Your task to perform on an android device: move a message to another label in the gmail app Image 0: 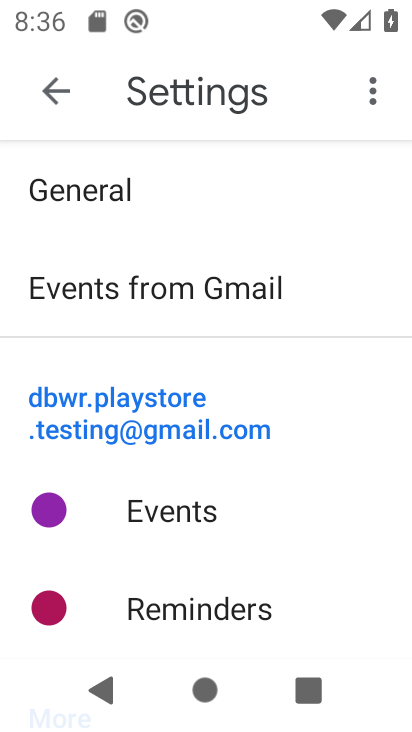
Step 0: press home button
Your task to perform on an android device: move a message to another label in the gmail app Image 1: 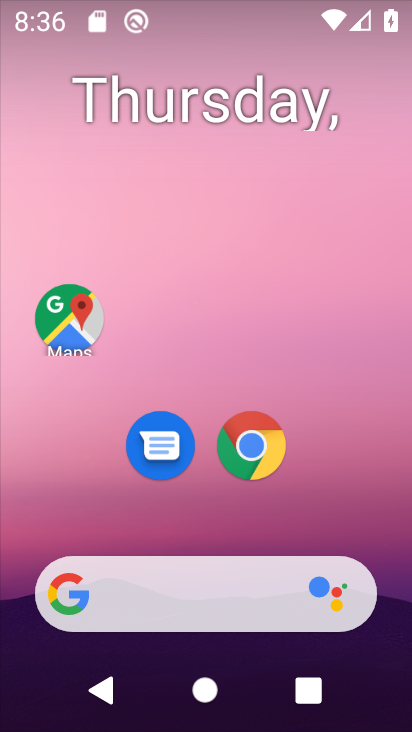
Step 1: drag from (202, 428) to (236, 125)
Your task to perform on an android device: move a message to another label in the gmail app Image 2: 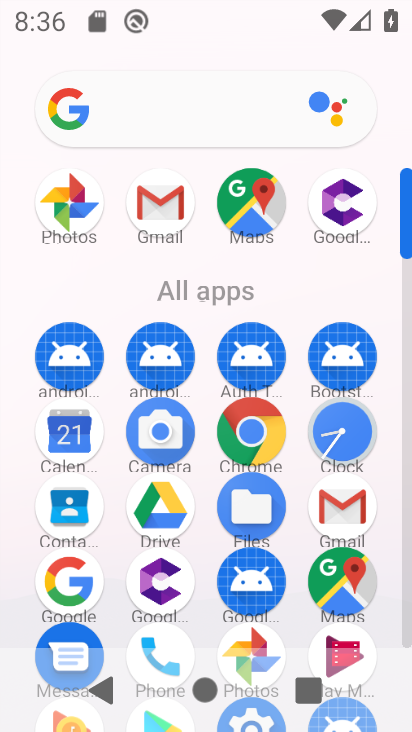
Step 2: click (161, 225)
Your task to perform on an android device: move a message to another label in the gmail app Image 3: 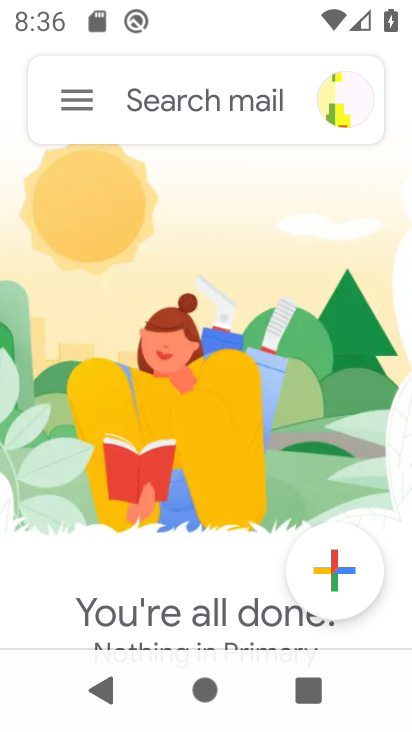
Step 3: task complete